Your task to perform on an android device: See recent photos Image 0: 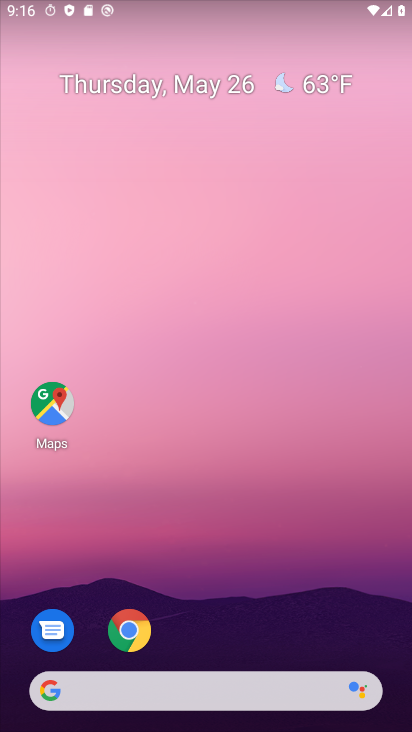
Step 0: drag from (232, 709) to (113, 184)
Your task to perform on an android device: See recent photos Image 1: 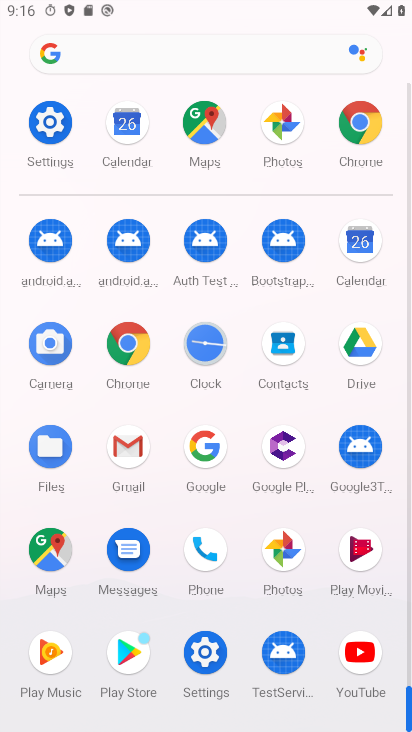
Step 1: click (298, 540)
Your task to perform on an android device: See recent photos Image 2: 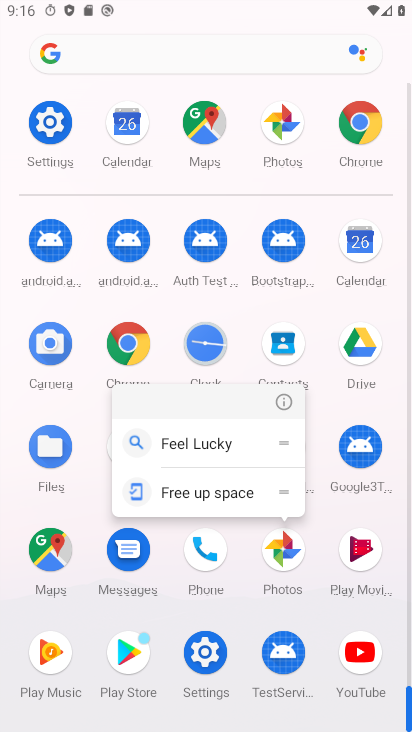
Step 2: click (285, 544)
Your task to perform on an android device: See recent photos Image 3: 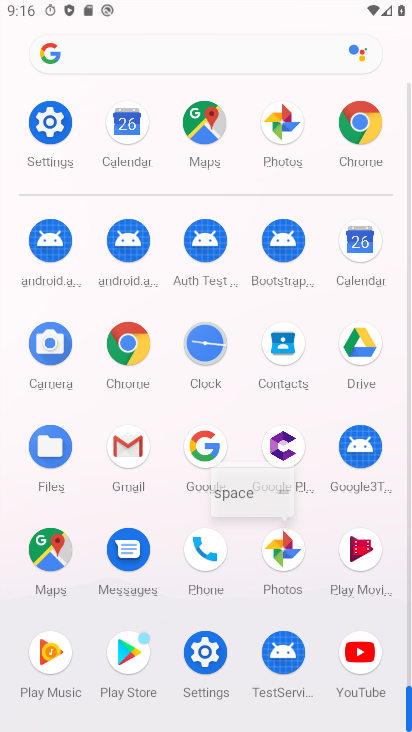
Step 3: click (285, 544)
Your task to perform on an android device: See recent photos Image 4: 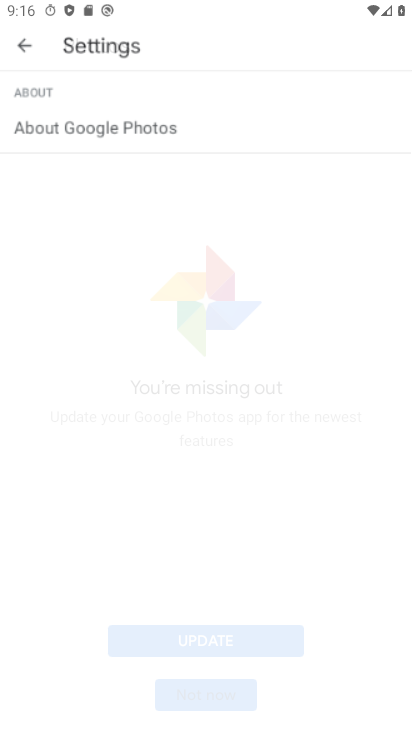
Step 4: click (285, 544)
Your task to perform on an android device: See recent photos Image 5: 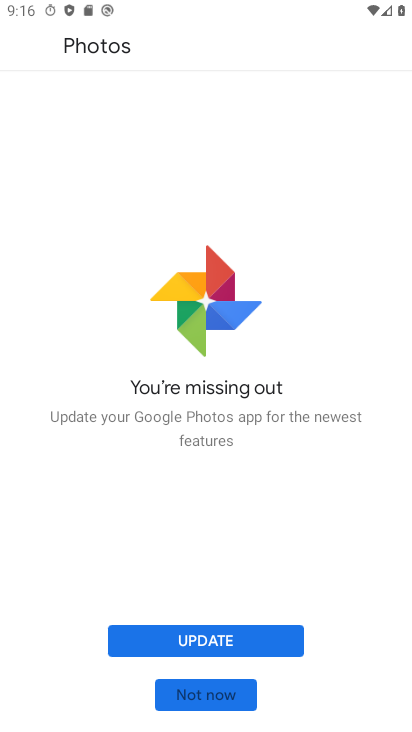
Step 5: click (224, 694)
Your task to perform on an android device: See recent photos Image 6: 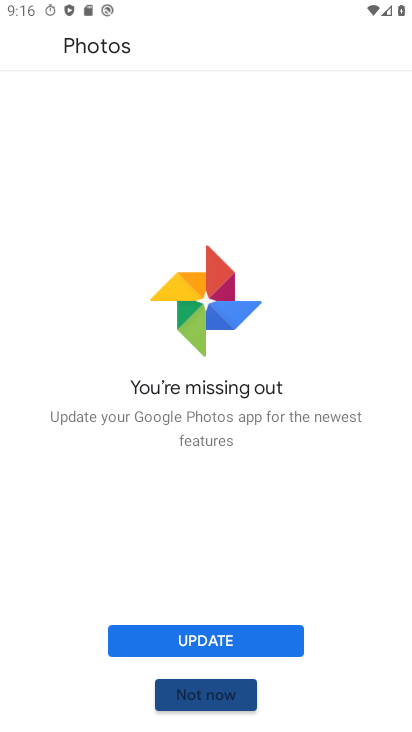
Step 6: click (225, 693)
Your task to perform on an android device: See recent photos Image 7: 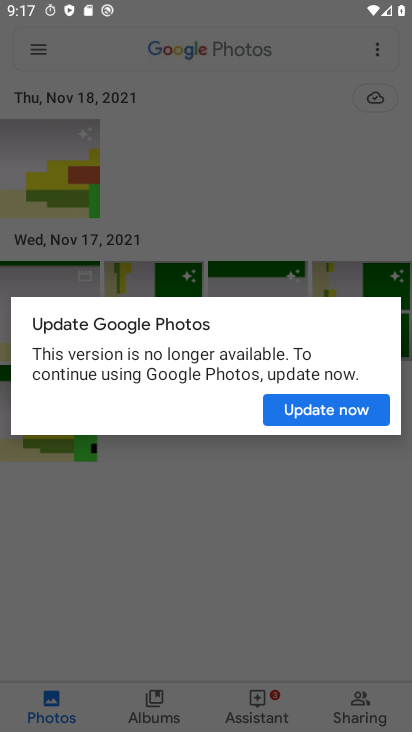
Step 7: click (226, 693)
Your task to perform on an android device: See recent photos Image 8: 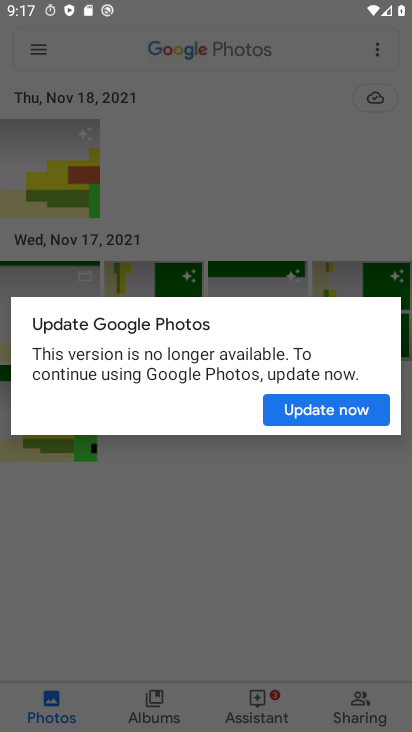
Step 8: click (227, 693)
Your task to perform on an android device: See recent photos Image 9: 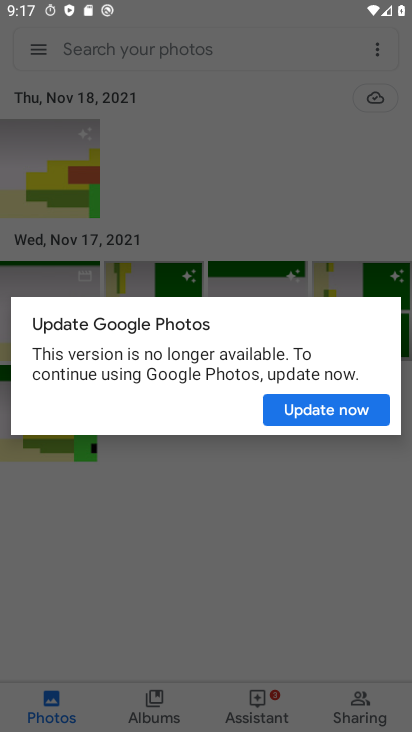
Step 9: click (311, 408)
Your task to perform on an android device: See recent photos Image 10: 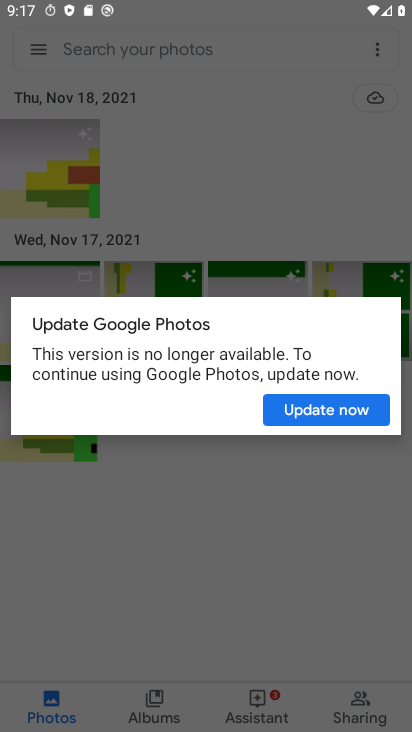
Step 10: click (318, 408)
Your task to perform on an android device: See recent photos Image 11: 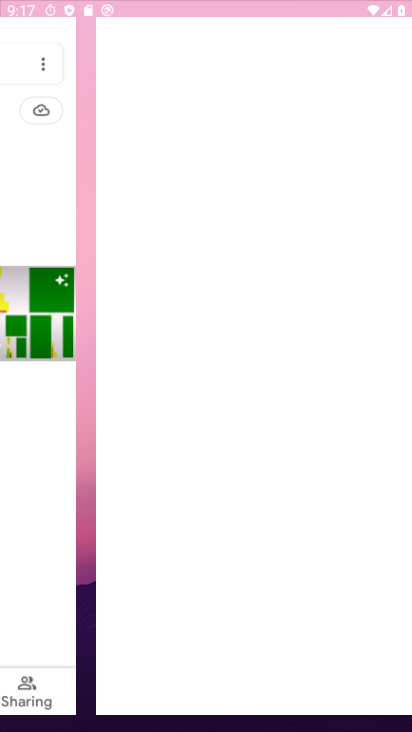
Step 11: click (321, 415)
Your task to perform on an android device: See recent photos Image 12: 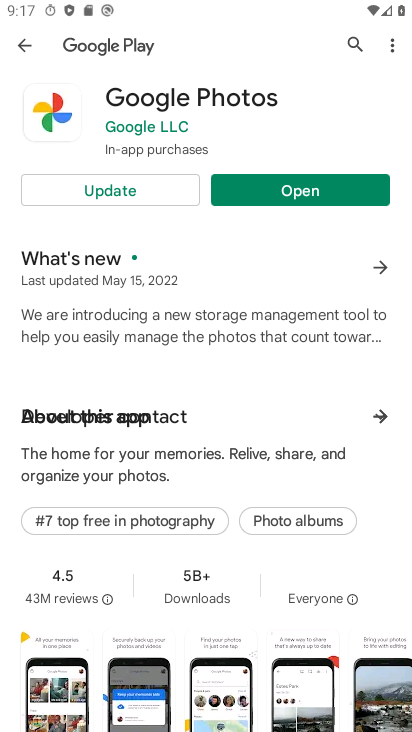
Step 12: drag from (314, 483) to (317, 531)
Your task to perform on an android device: See recent photos Image 13: 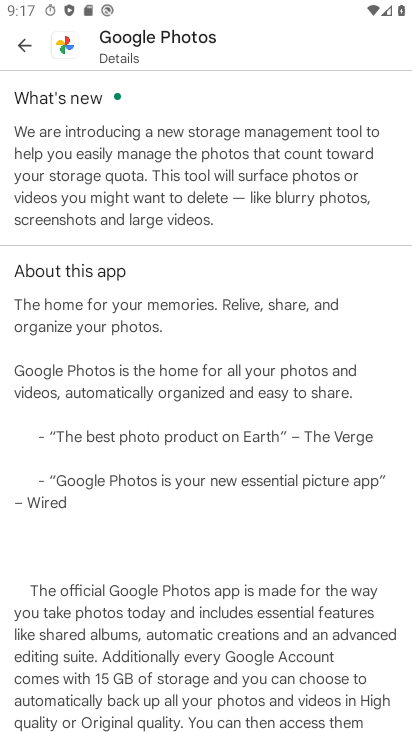
Step 13: click (30, 46)
Your task to perform on an android device: See recent photos Image 14: 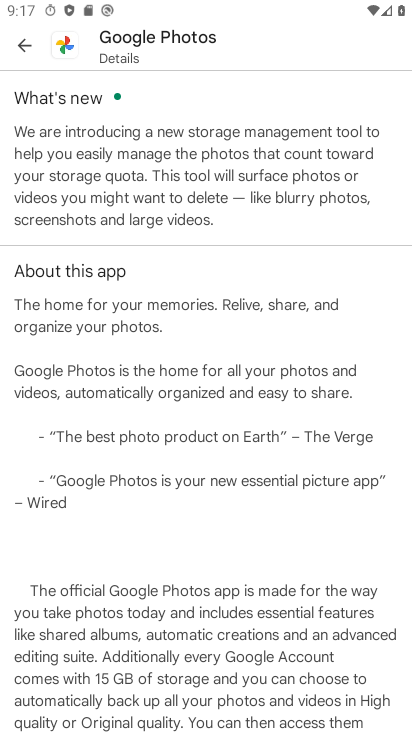
Step 14: click (10, 54)
Your task to perform on an android device: See recent photos Image 15: 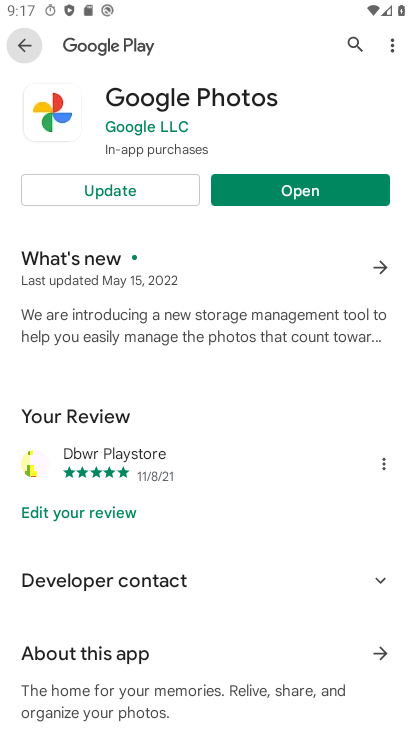
Step 15: click (20, 48)
Your task to perform on an android device: See recent photos Image 16: 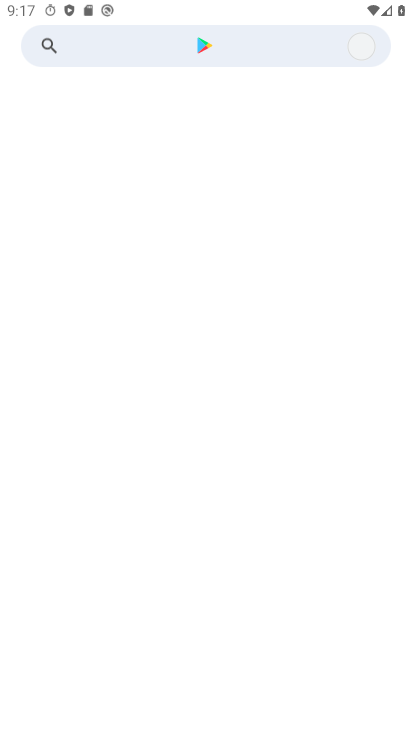
Step 16: click (20, 48)
Your task to perform on an android device: See recent photos Image 17: 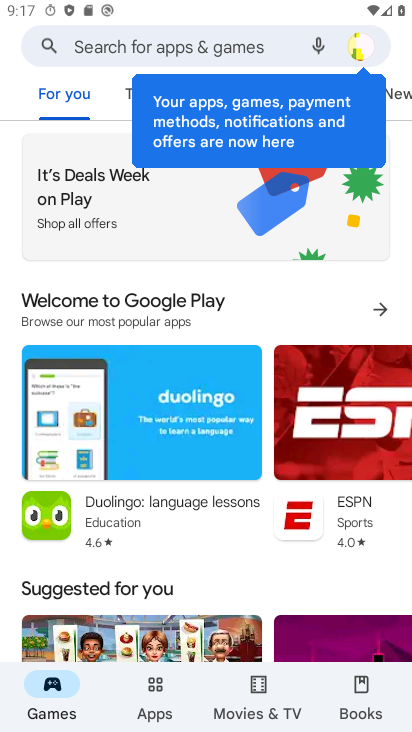
Step 17: press back button
Your task to perform on an android device: See recent photos Image 18: 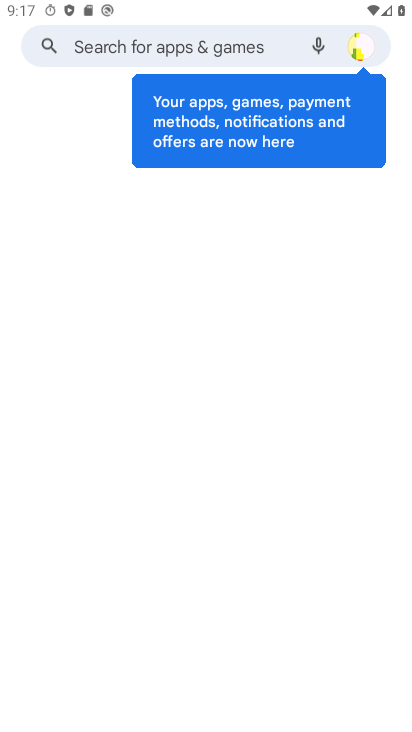
Step 18: press back button
Your task to perform on an android device: See recent photos Image 19: 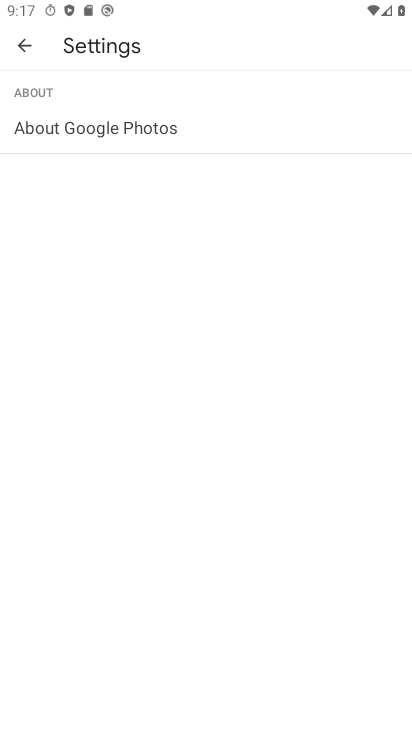
Step 19: click (18, 41)
Your task to perform on an android device: See recent photos Image 20: 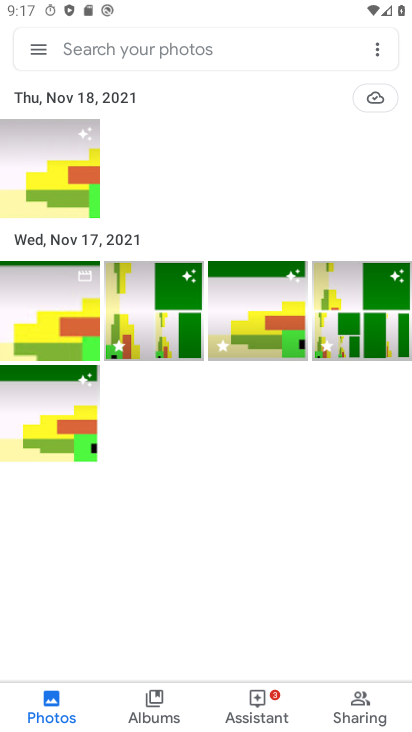
Step 20: task complete